Your task to perform on an android device: open app "Messages" (install if not already installed) Image 0: 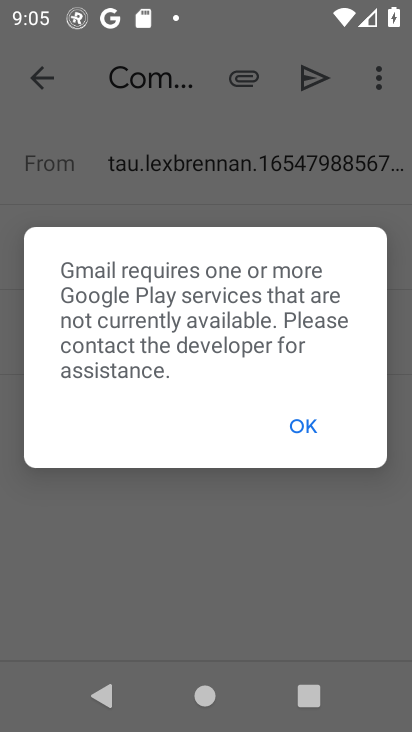
Step 0: press back button
Your task to perform on an android device: open app "Messages" (install if not already installed) Image 1: 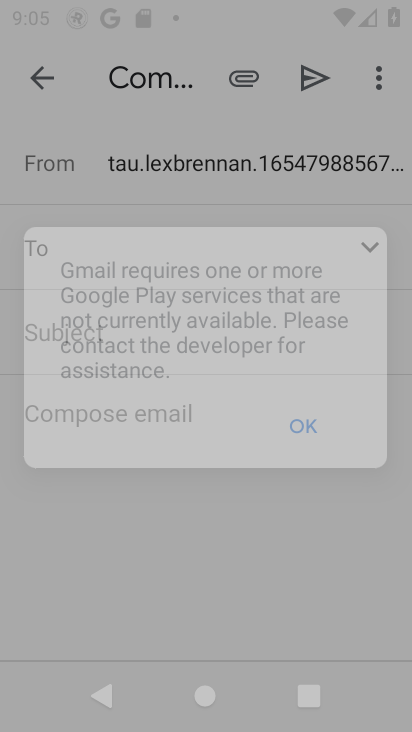
Step 1: press back button
Your task to perform on an android device: open app "Messages" (install if not already installed) Image 2: 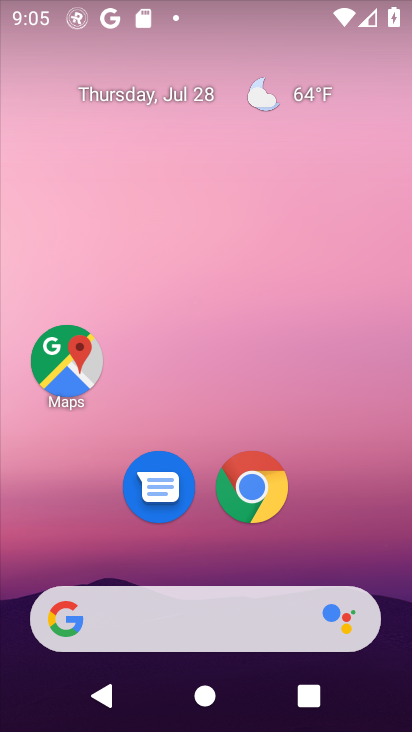
Step 2: drag from (217, 437) to (204, 125)
Your task to perform on an android device: open app "Messages" (install if not already installed) Image 3: 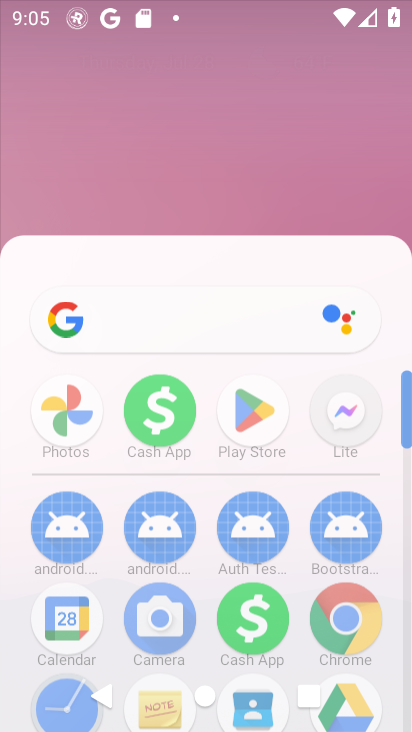
Step 3: drag from (243, 585) to (182, 168)
Your task to perform on an android device: open app "Messages" (install if not already installed) Image 4: 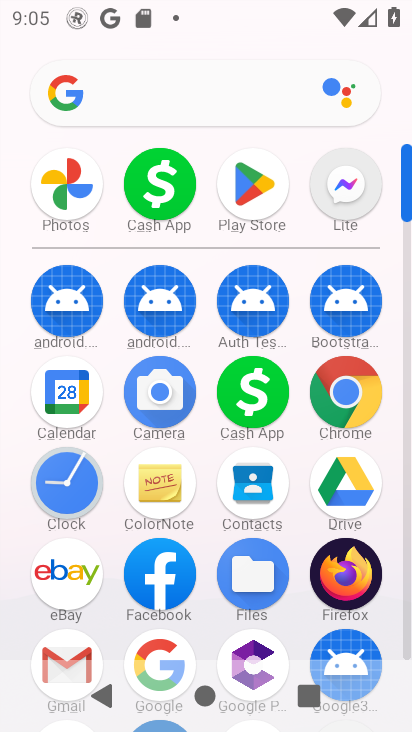
Step 4: click (251, 183)
Your task to perform on an android device: open app "Messages" (install if not already installed) Image 5: 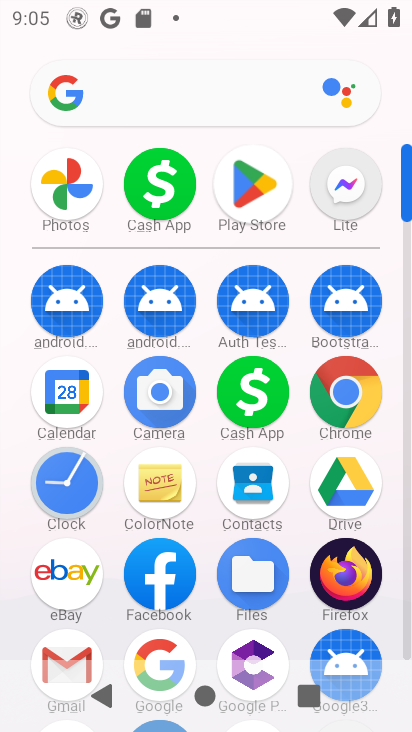
Step 5: click (251, 183)
Your task to perform on an android device: open app "Messages" (install if not already installed) Image 6: 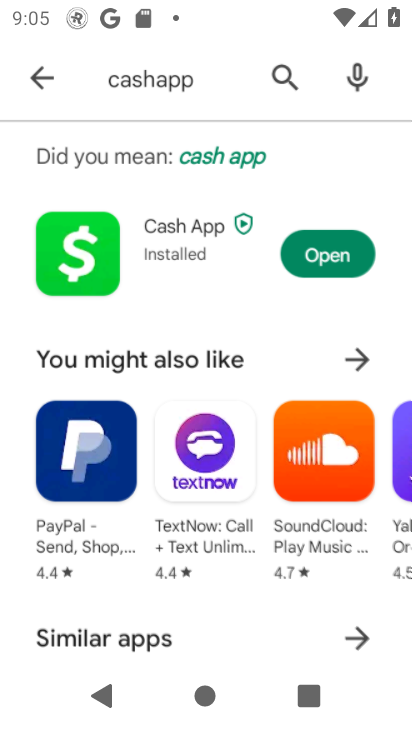
Step 6: click (253, 184)
Your task to perform on an android device: open app "Messages" (install if not already installed) Image 7: 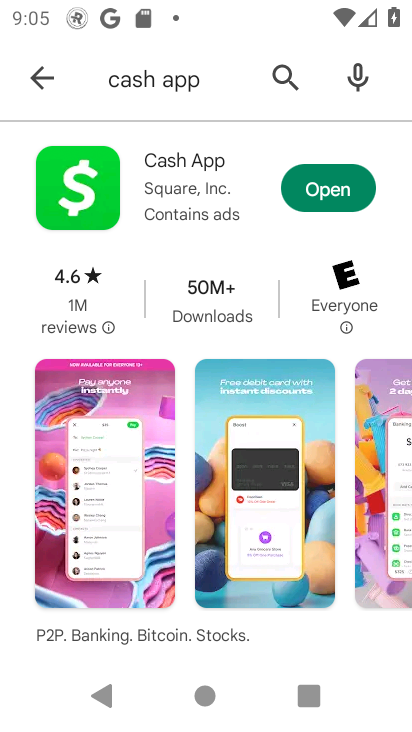
Step 7: click (40, 73)
Your task to perform on an android device: open app "Messages" (install if not already installed) Image 8: 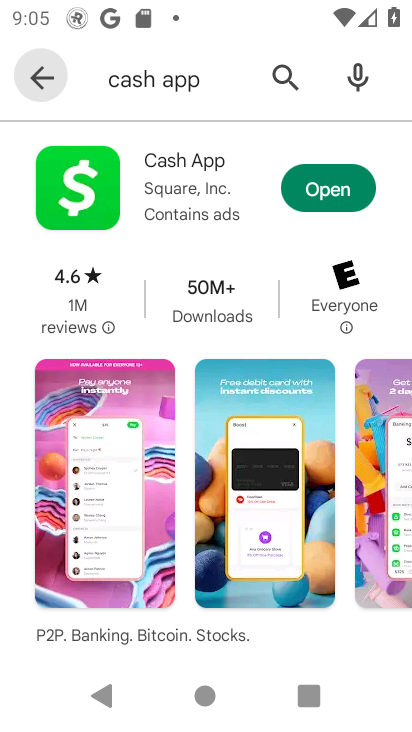
Step 8: click (40, 73)
Your task to perform on an android device: open app "Messages" (install if not already installed) Image 9: 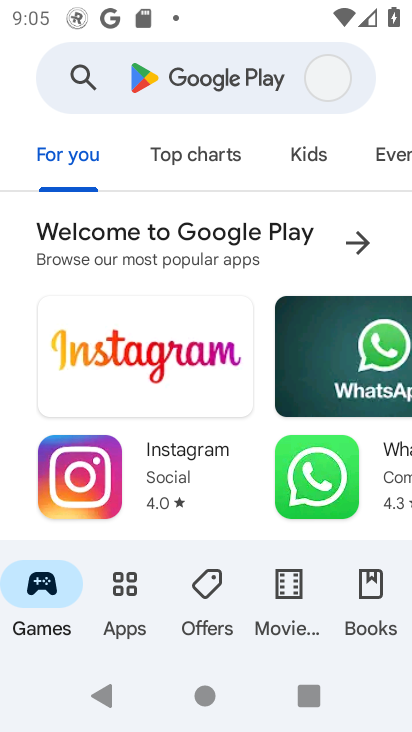
Step 9: click (40, 73)
Your task to perform on an android device: open app "Messages" (install if not already installed) Image 10: 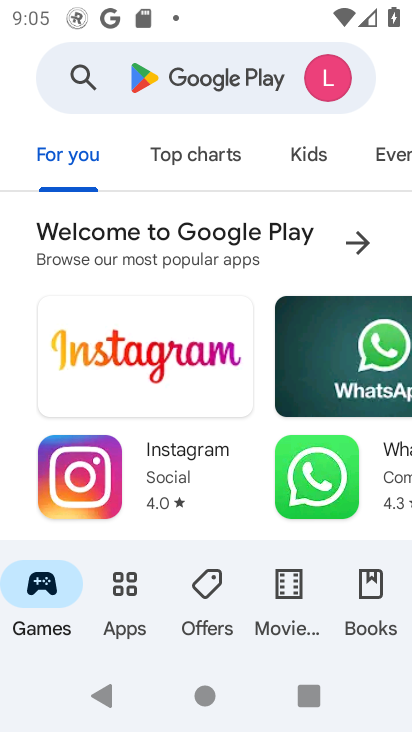
Step 10: click (40, 73)
Your task to perform on an android device: open app "Messages" (install if not already installed) Image 11: 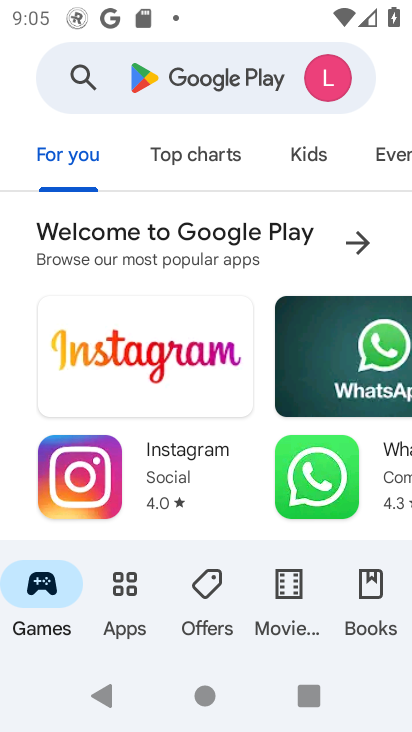
Step 11: click (151, 73)
Your task to perform on an android device: open app "Messages" (install if not already installed) Image 12: 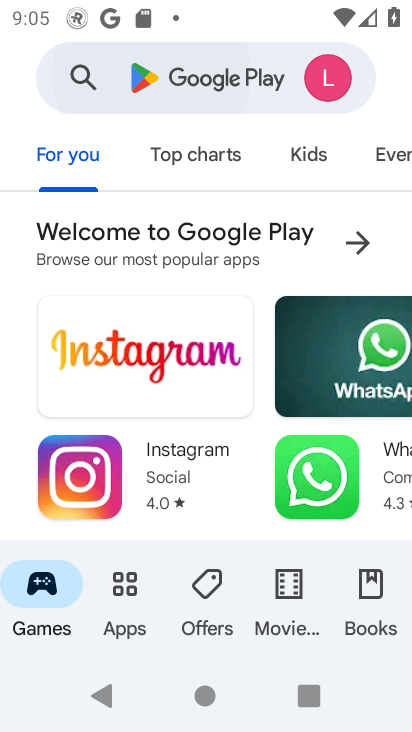
Step 12: click (152, 72)
Your task to perform on an android device: open app "Messages" (install if not already installed) Image 13: 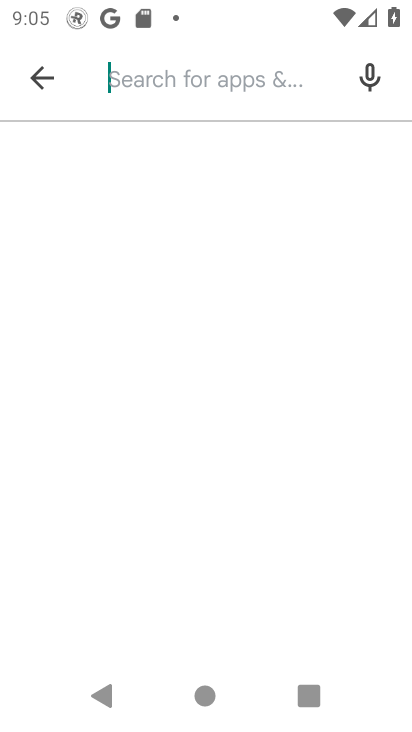
Step 13: click (152, 71)
Your task to perform on an android device: open app "Messages" (install if not already installed) Image 14: 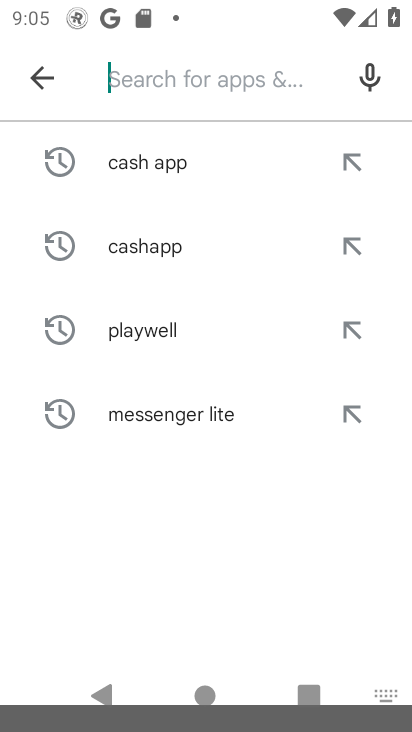
Step 14: click (153, 70)
Your task to perform on an android device: open app "Messages" (install if not already installed) Image 15: 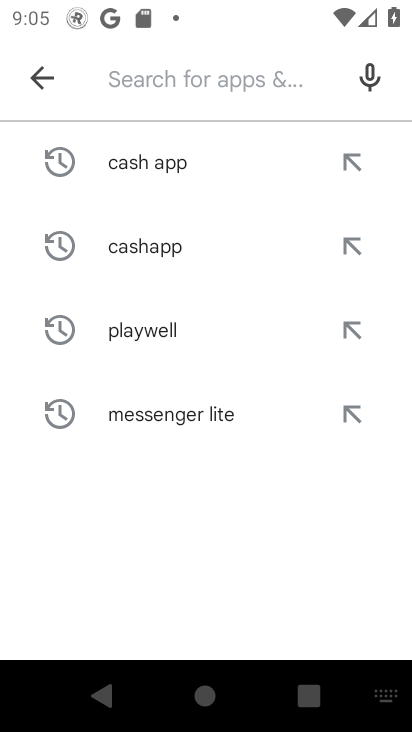
Step 15: type "messages"
Your task to perform on an android device: open app "Messages" (install if not already installed) Image 16: 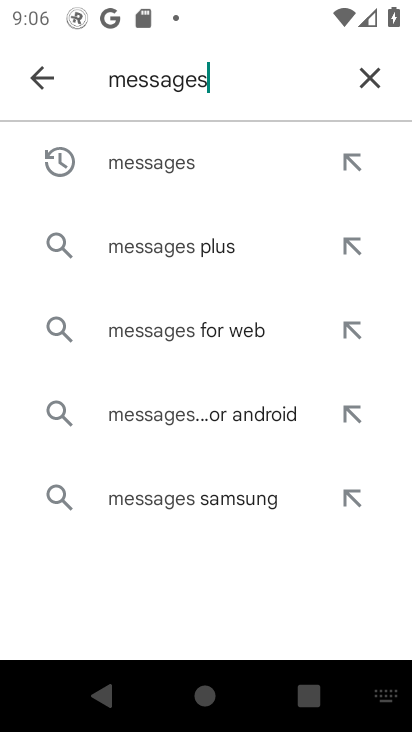
Step 16: click (165, 165)
Your task to perform on an android device: open app "Messages" (install if not already installed) Image 17: 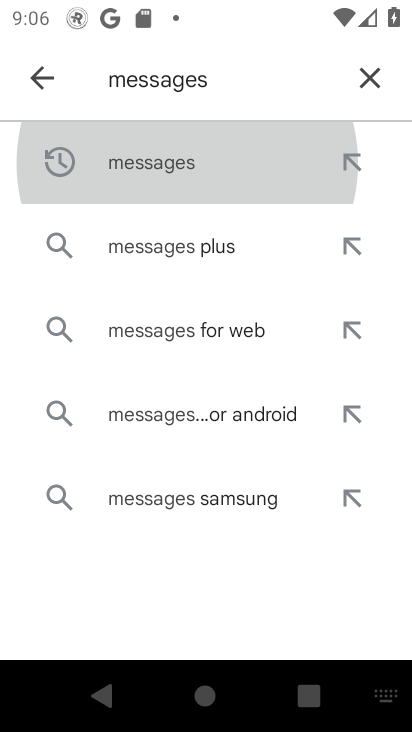
Step 17: click (165, 164)
Your task to perform on an android device: open app "Messages" (install if not already installed) Image 18: 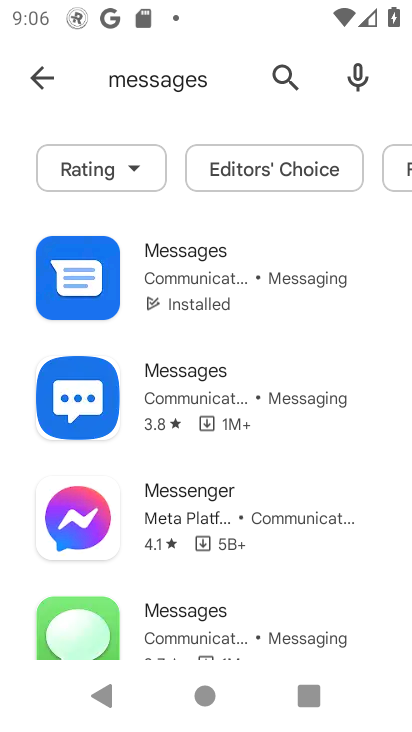
Step 18: task complete